Your task to perform on an android device: open chrome privacy settings Image 0: 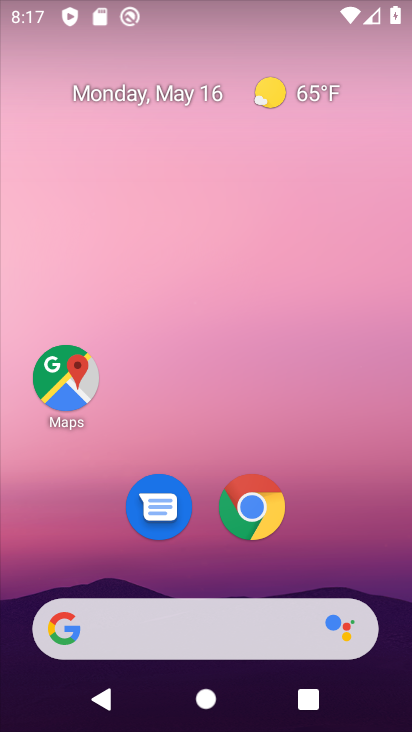
Step 0: click (224, 504)
Your task to perform on an android device: open chrome privacy settings Image 1: 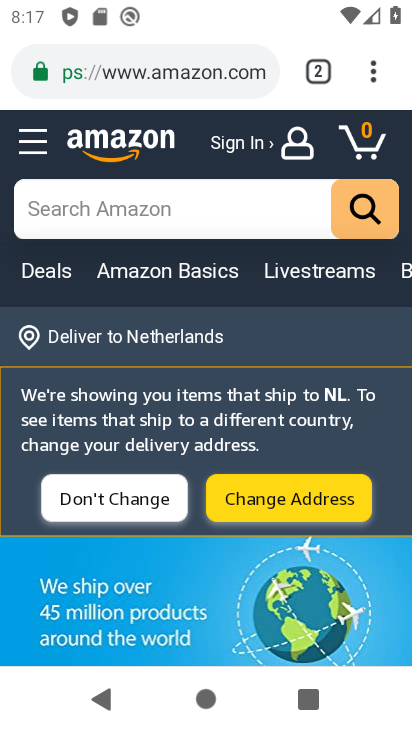
Step 1: click (371, 78)
Your task to perform on an android device: open chrome privacy settings Image 2: 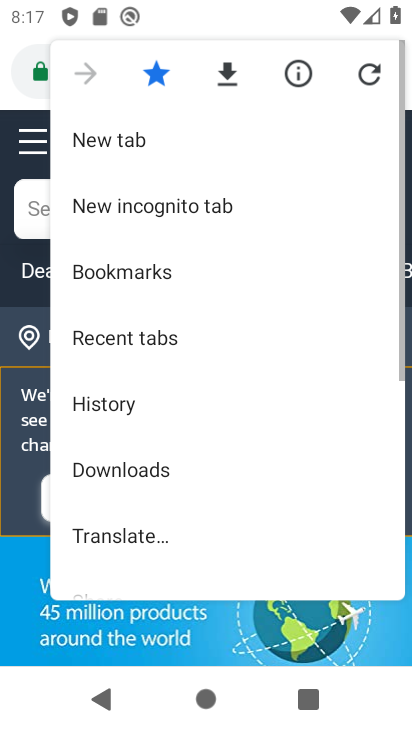
Step 2: drag from (193, 512) to (183, 11)
Your task to perform on an android device: open chrome privacy settings Image 3: 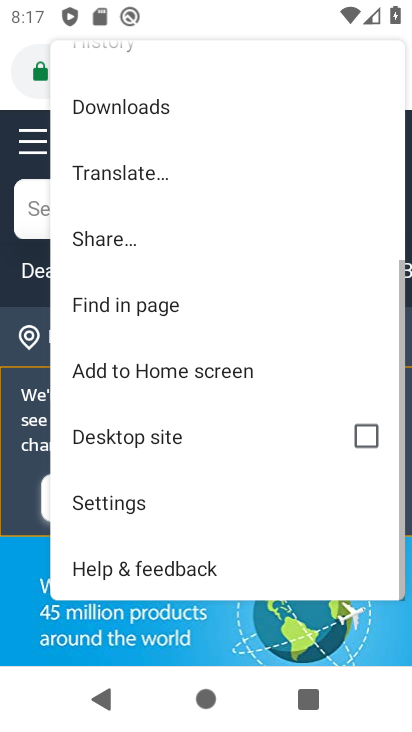
Step 3: click (126, 506)
Your task to perform on an android device: open chrome privacy settings Image 4: 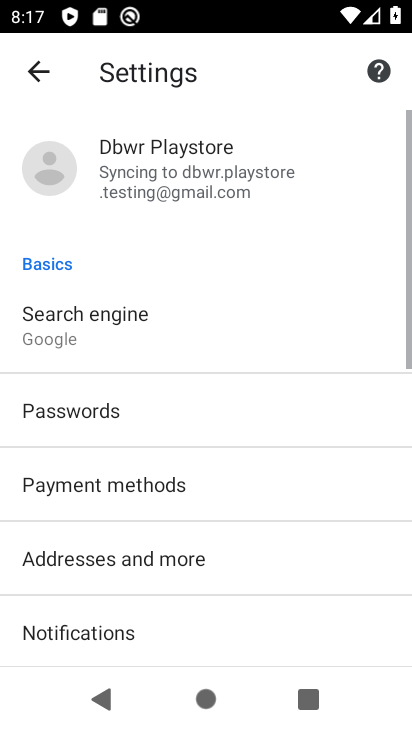
Step 4: drag from (133, 495) to (101, 68)
Your task to perform on an android device: open chrome privacy settings Image 5: 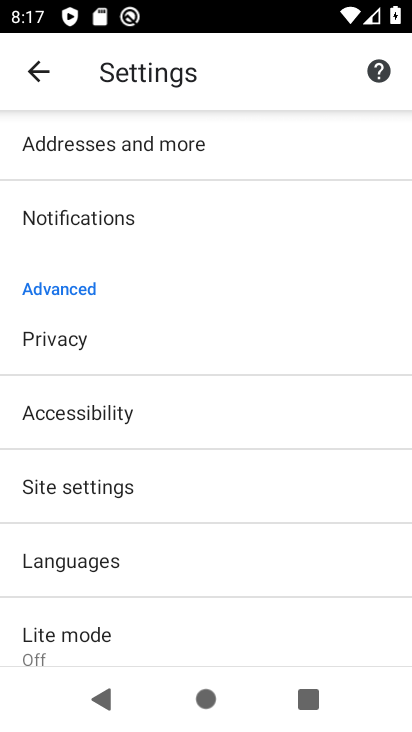
Step 5: click (116, 353)
Your task to perform on an android device: open chrome privacy settings Image 6: 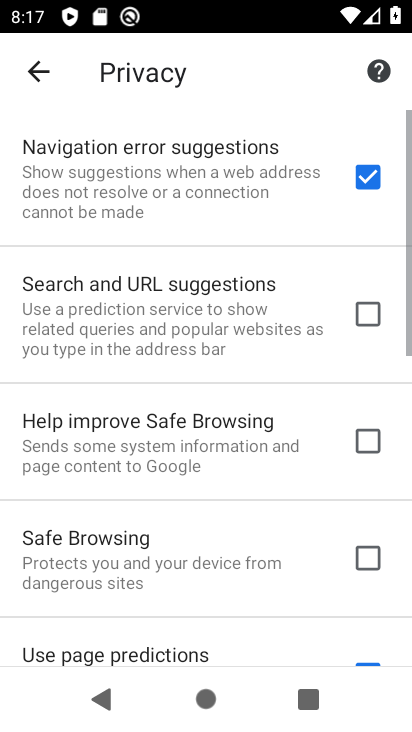
Step 6: task complete